Your task to perform on an android device: empty trash in google photos Image 0: 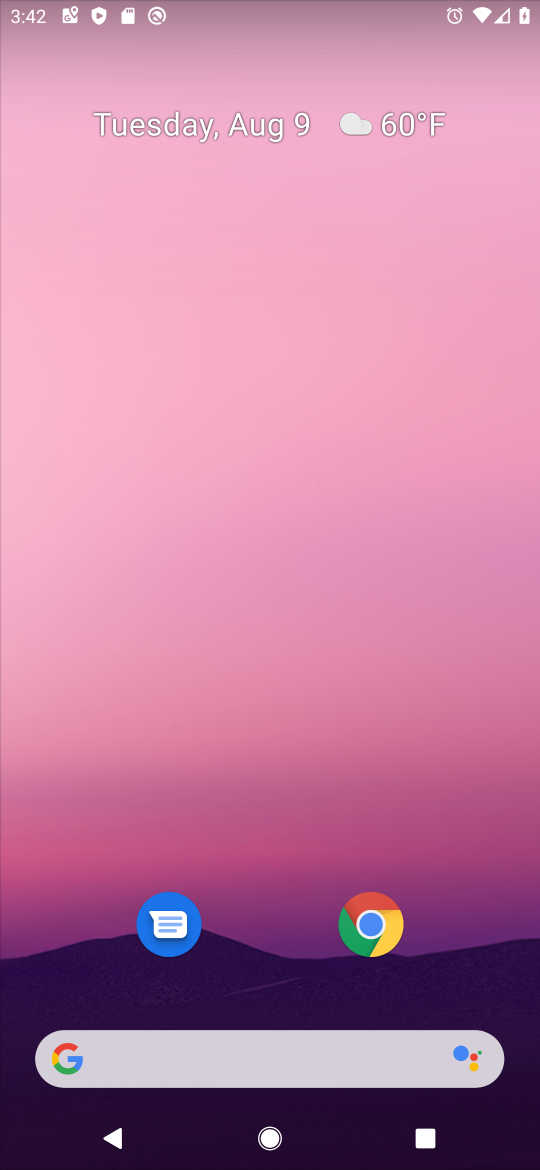
Step 0: drag from (295, 856) to (406, 0)
Your task to perform on an android device: empty trash in google photos Image 1: 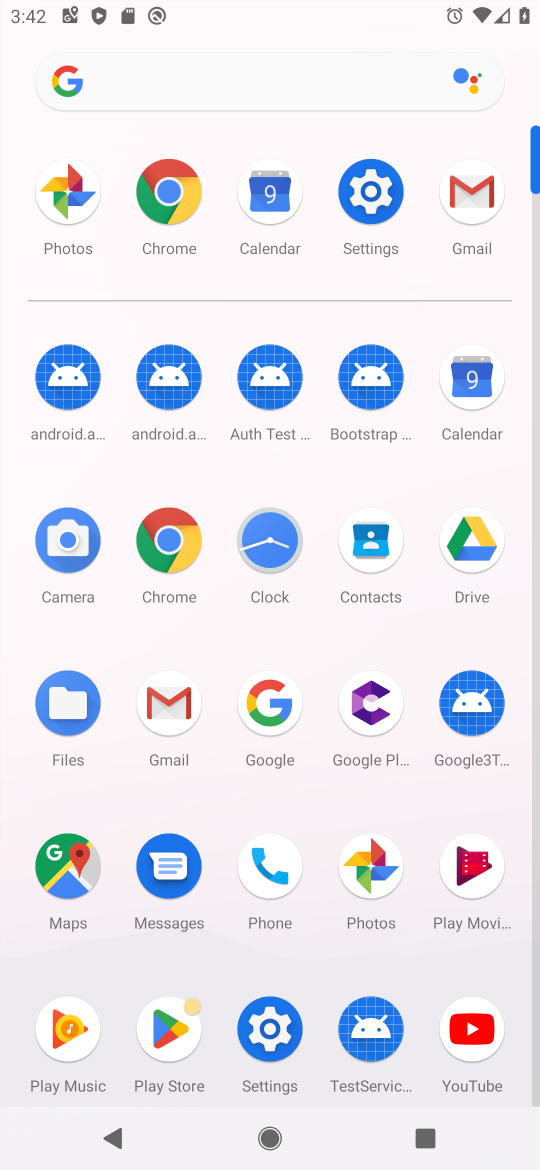
Step 1: click (63, 192)
Your task to perform on an android device: empty trash in google photos Image 2: 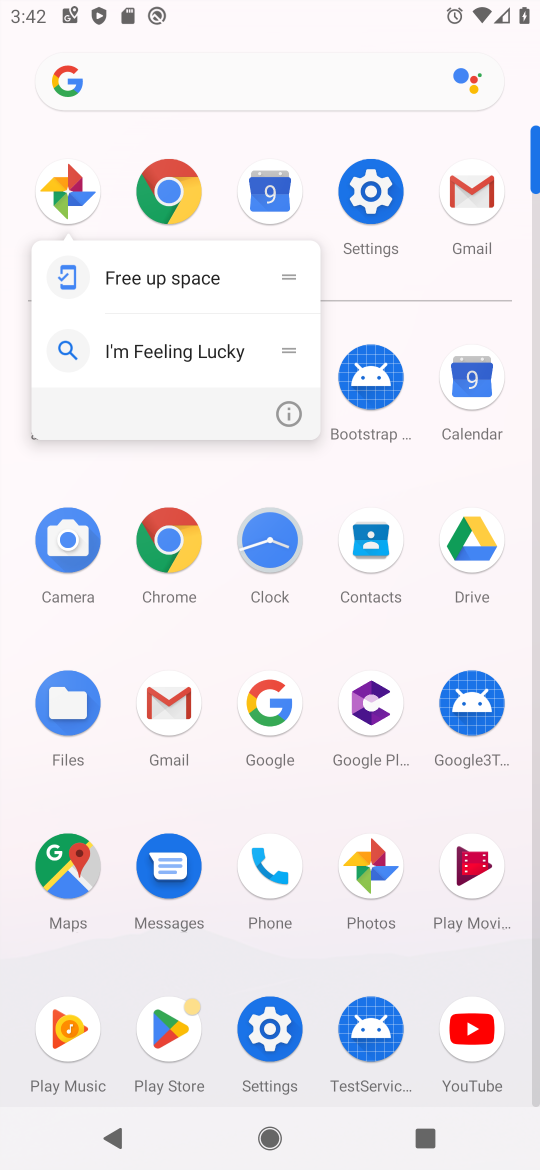
Step 2: click (63, 192)
Your task to perform on an android device: empty trash in google photos Image 3: 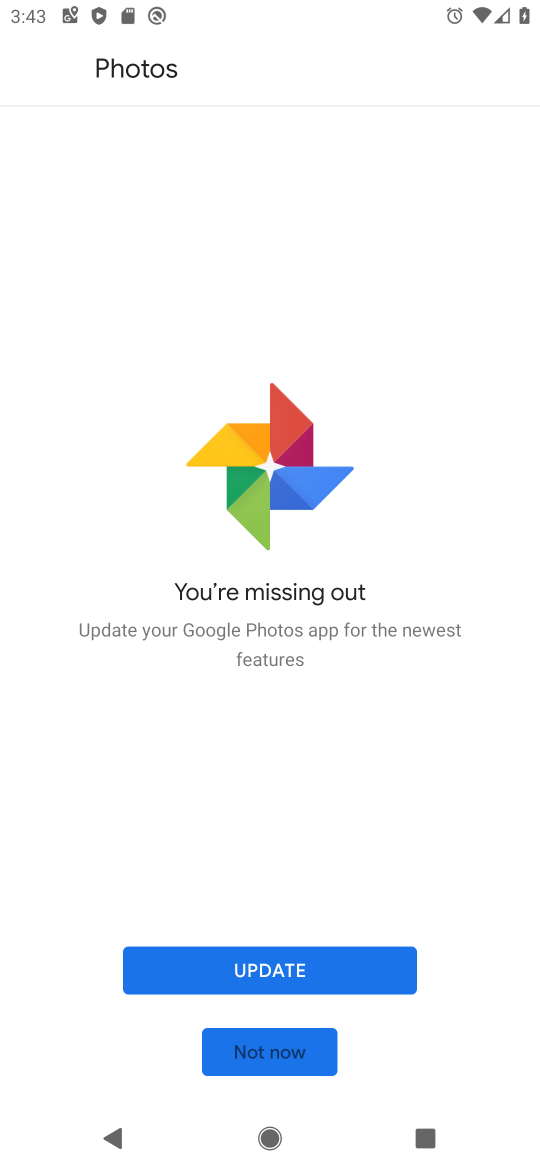
Step 3: click (286, 1061)
Your task to perform on an android device: empty trash in google photos Image 4: 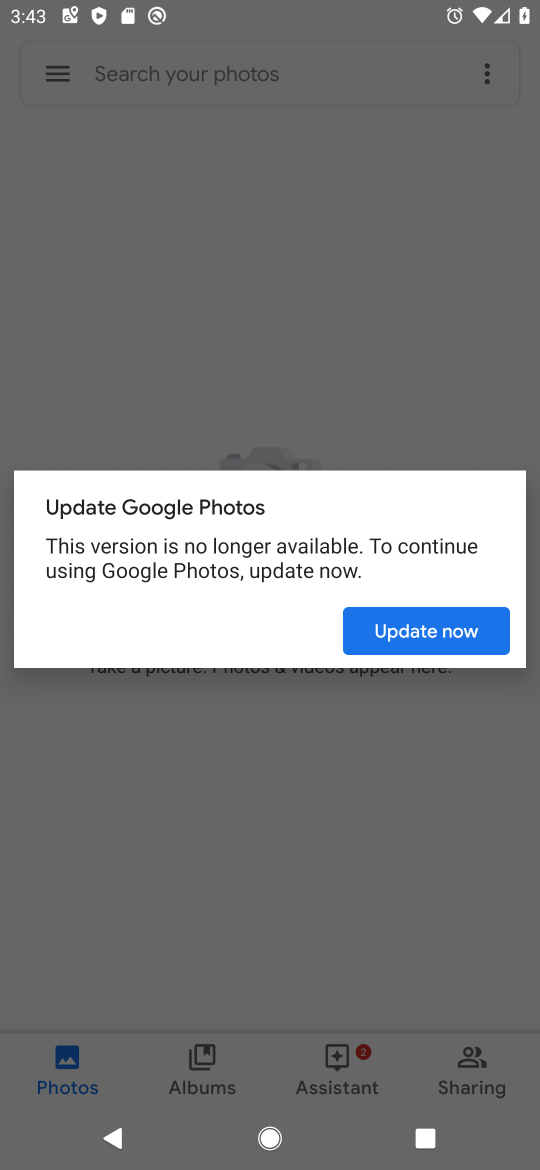
Step 4: click (466, 628)
Your task to perform on an android device: empty trash in google photos Image 5: 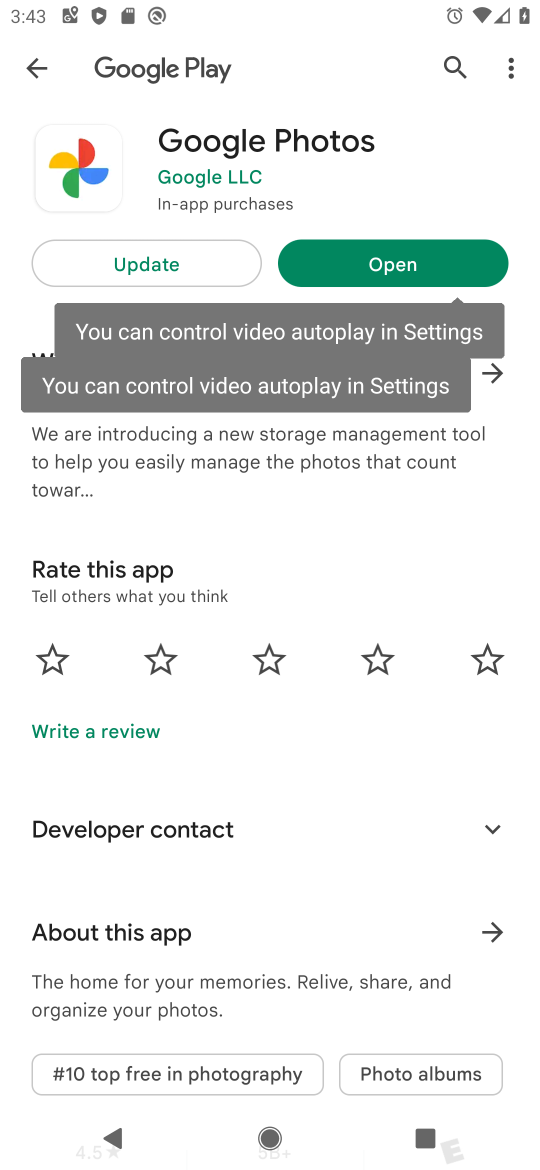
Step 5: click (395, 263)
Your task to perform on an android device: empty trash in google photos Image 6: 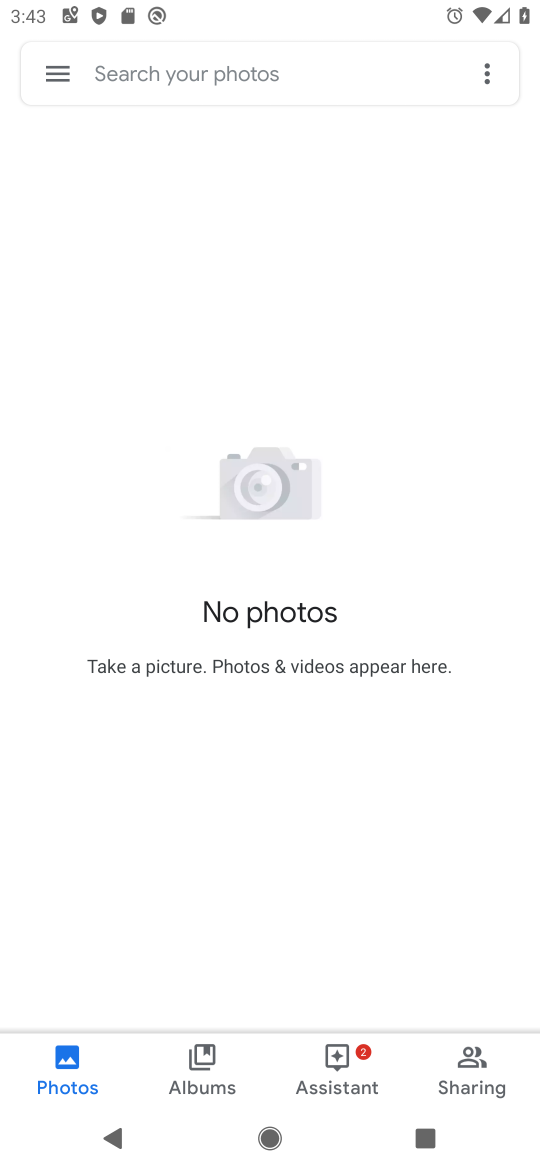
Step 6: click (56, 64)
Your task to perform on an android device: empty trash in google photos Image 7: 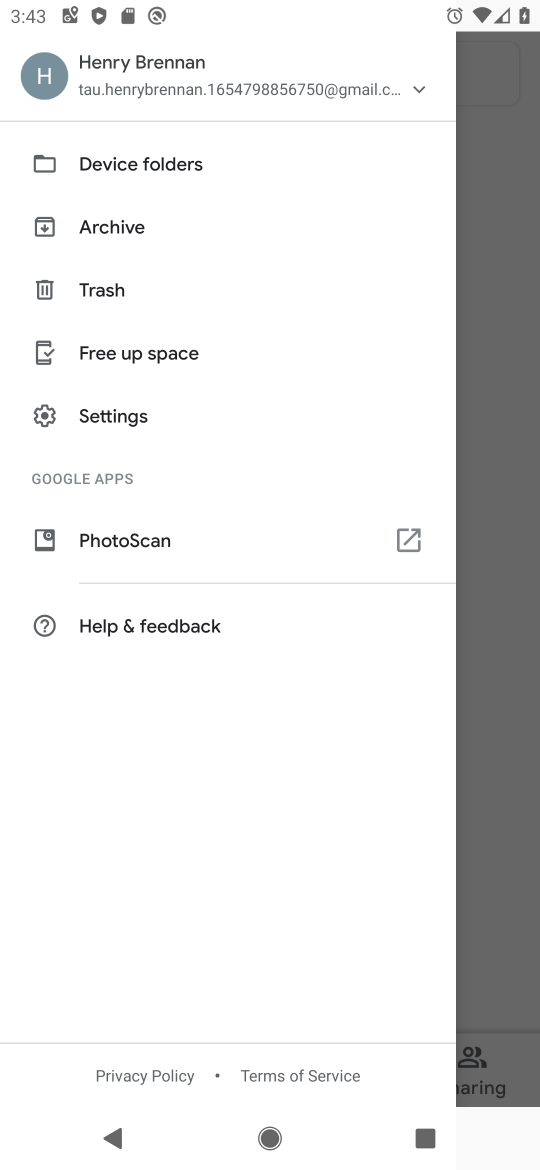
Step 7: click (81, 289)
Your task to perform on an android device: empty trash in google photos Image 8: 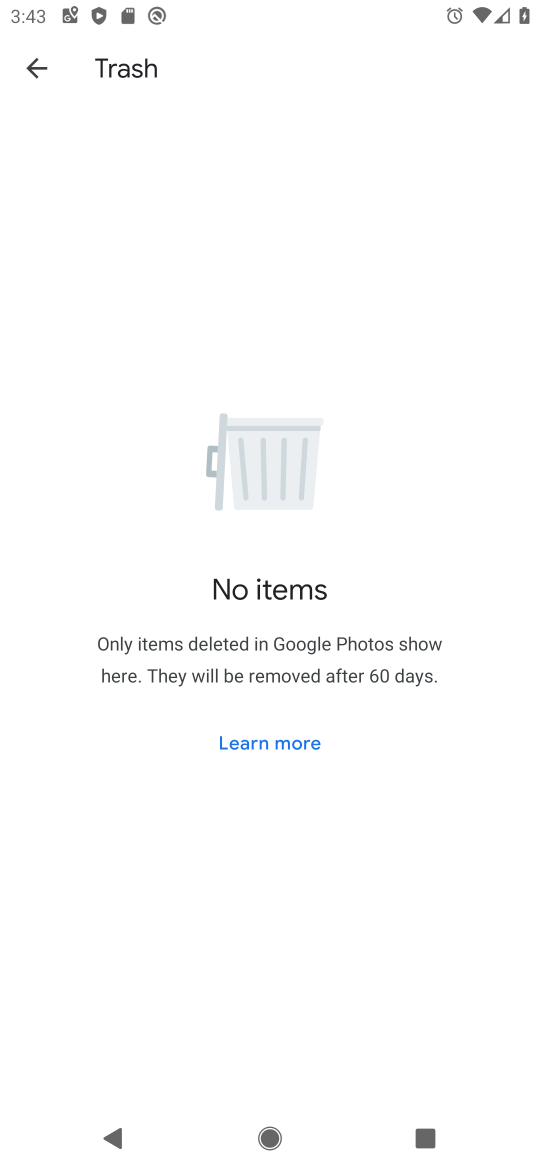
Step 8: task complete